Your task to perform on an android device: Open Google Chrome Image 0: 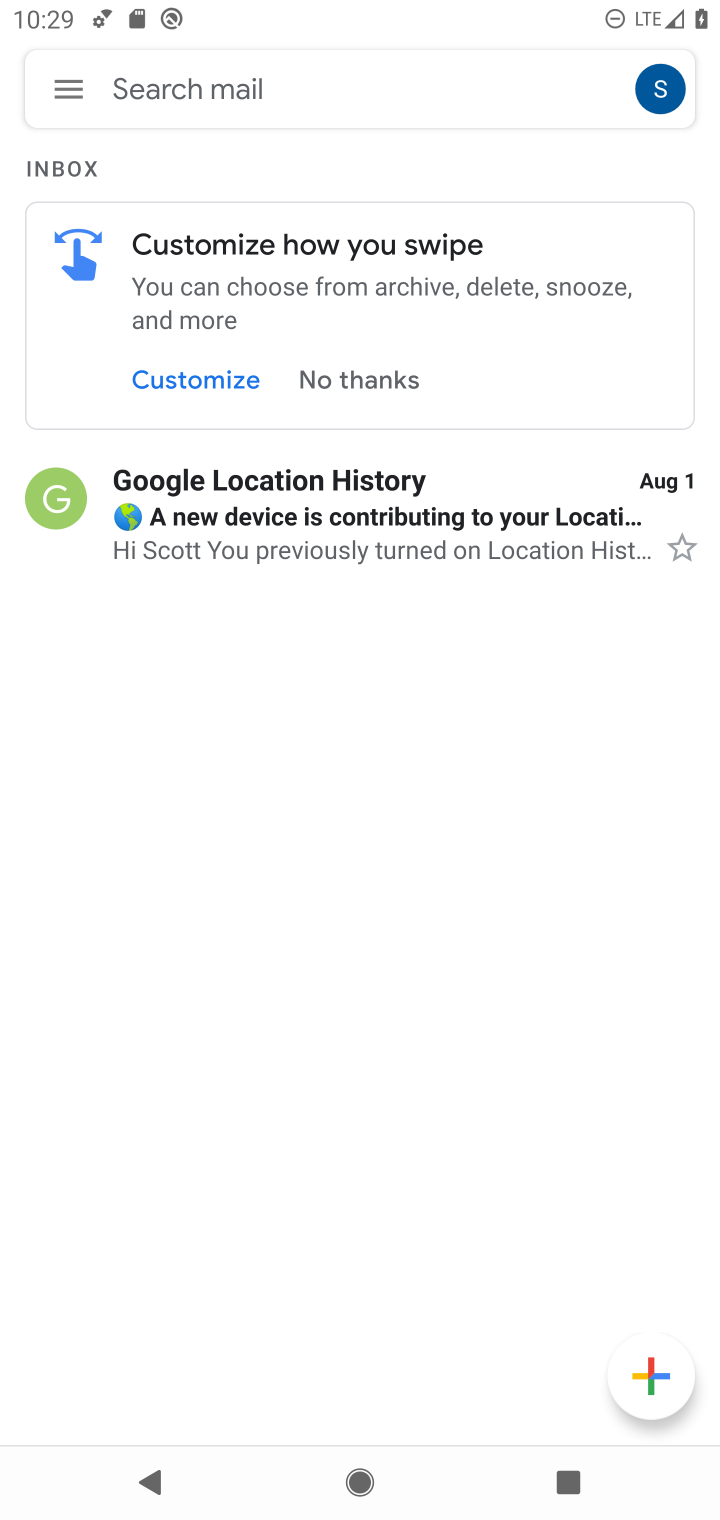
Step 0: press home button
Your task to perform on an android device: Open Google Chrome Image 1: 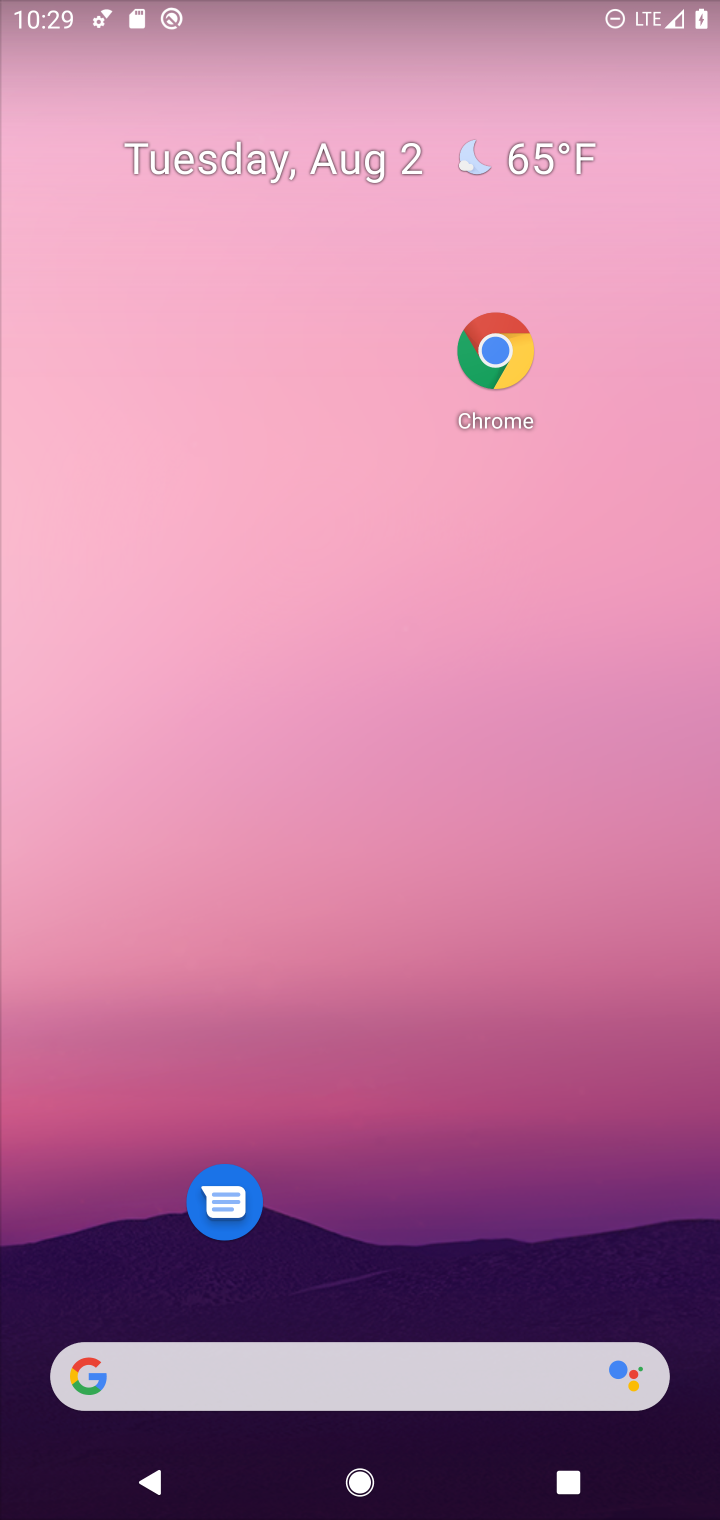
Step 1: click (499, 343)
Your task to perform on an android device: Open Google Chrome Image 2: 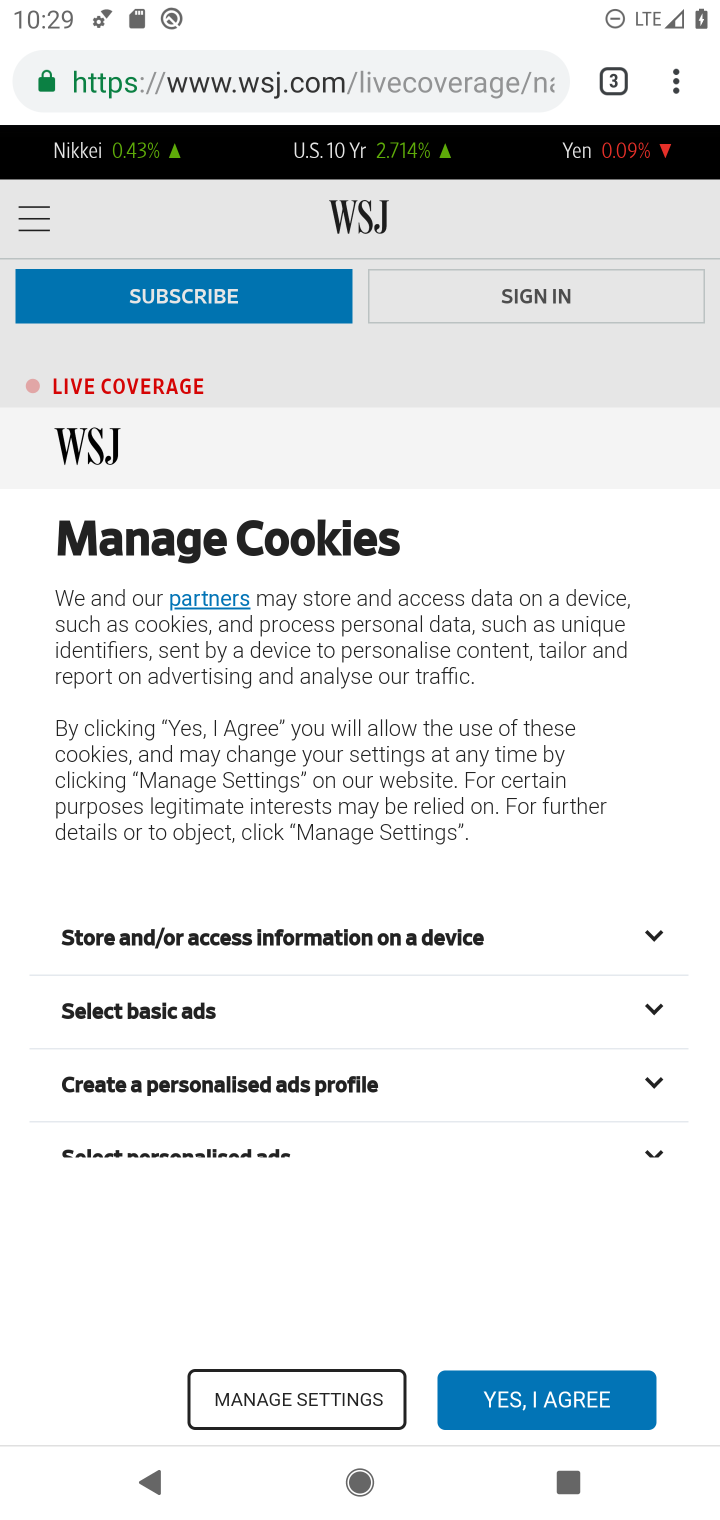
Step 2: task complete